Your task to perform on an android device: Go to sound settings Image 0: 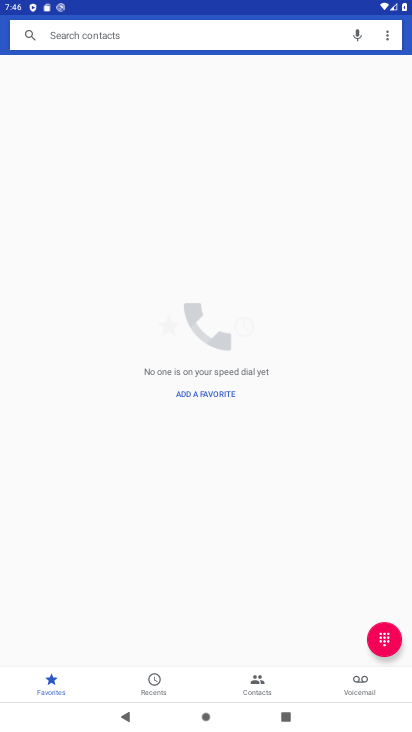
Step 0: press home button
Your task to perform on an android device: Go to sound settings Image 1: 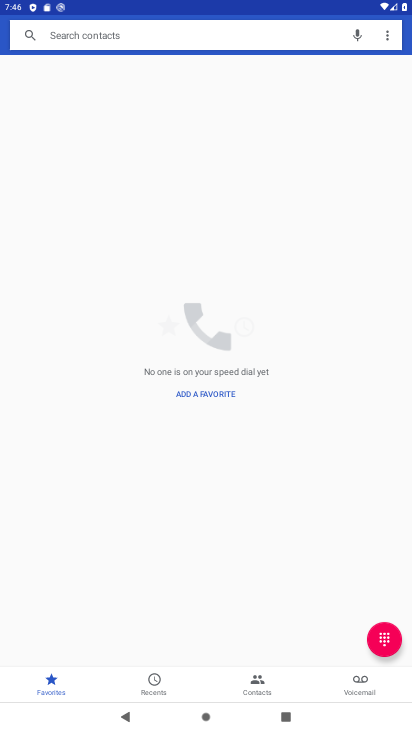
Step 1: press home button
Your task to perform on an android device: Go to sound settings Image 2: 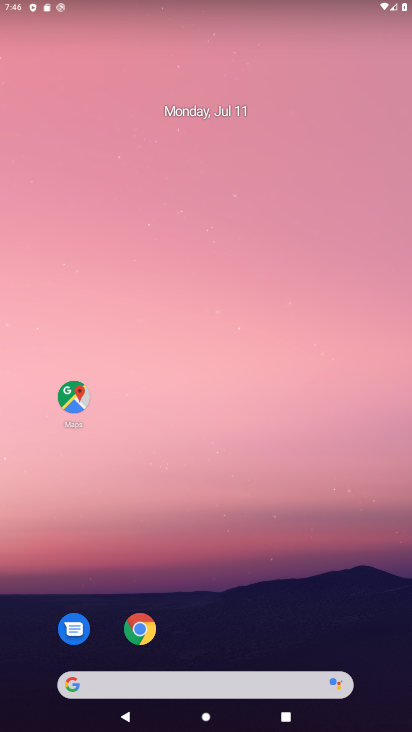
Step 2: drag from (200, 668) to (206, 216)
Your task to perform on an android device: Go to sound settings Image 3: 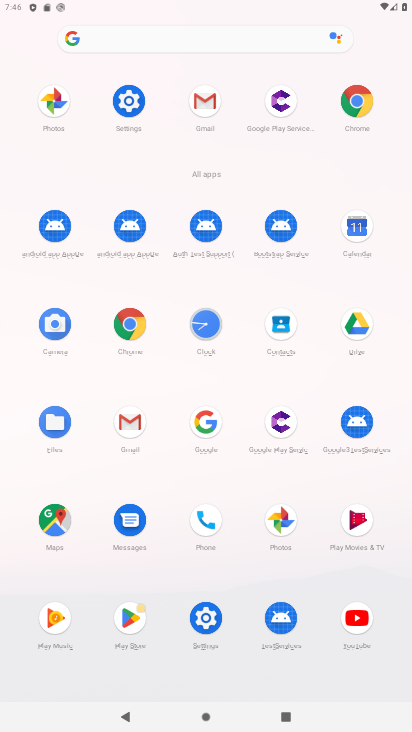
Step 3: click (211, 633)
Your task to perform on an android device: Go to sound settings Image 4: 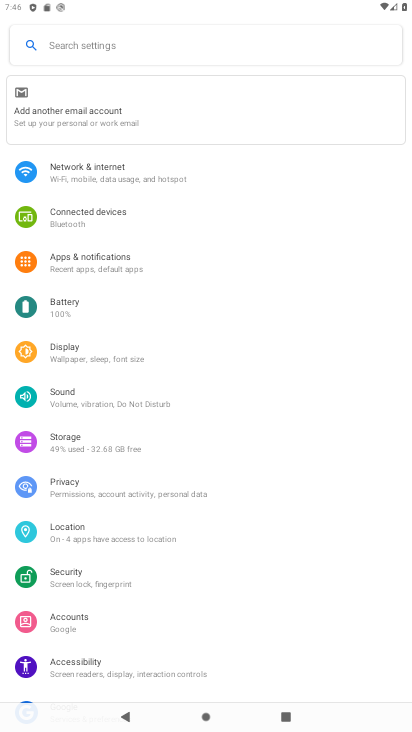
Step 4: click (62, 402)
Your task to perform on an android device: Go to sound settings Image 5: 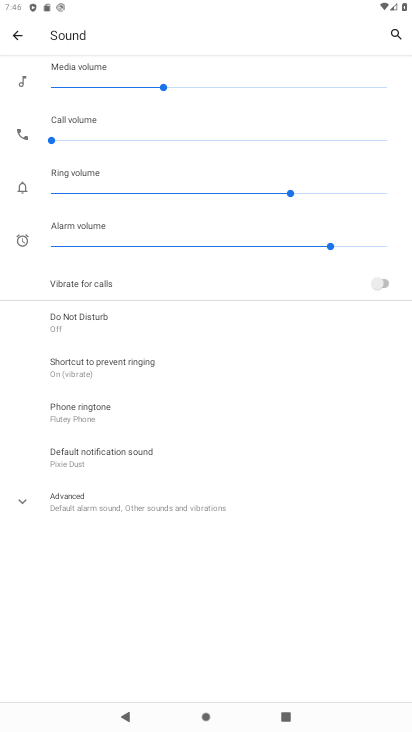
Step 5: task complete